Your task to perform on an android device: What's the weather today? Image 0: 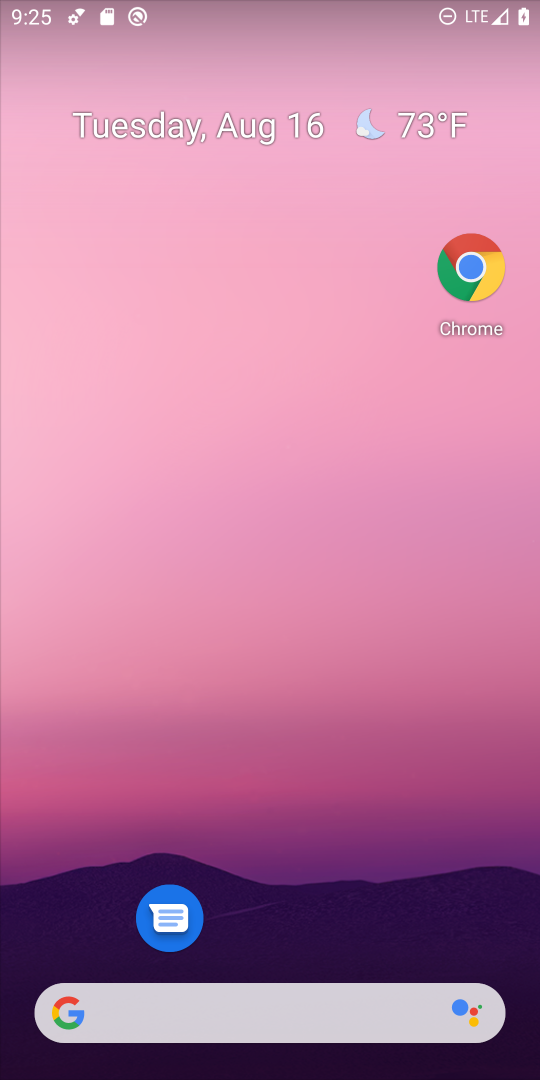
Step 0: drag from (363, 839) to (403, 166)
Your task to perform on an android device: What's the weather today? Image 1: 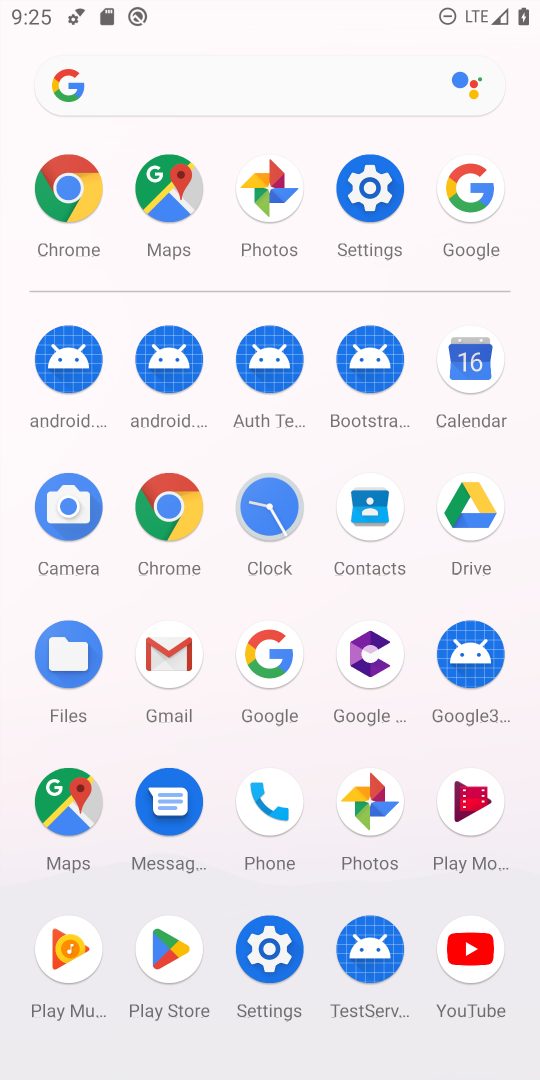
Step 1: click (277, 685)
Your task to perform on an android device: What's the weather today? Image 2: 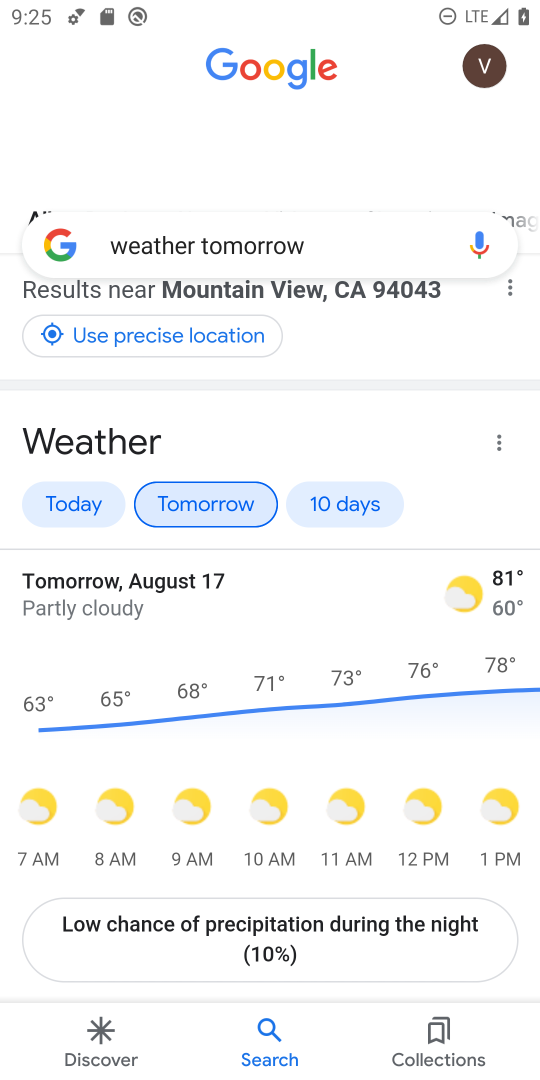
Step 2: click (68, 512)
Your task to perform on an android device: What's the weather today? Image 3: 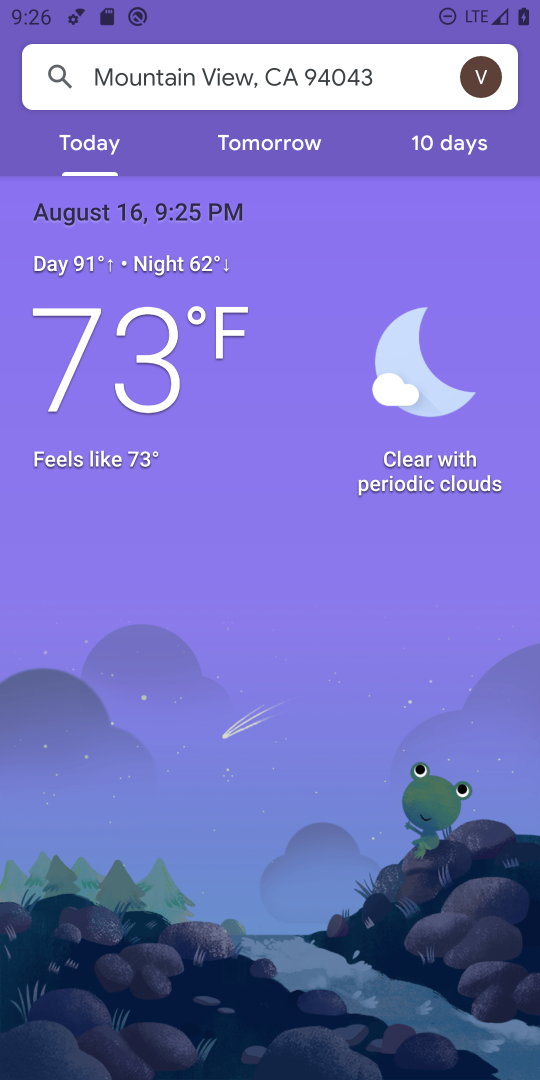
Step 3: task complete